Your task to perform on an android device: Do I have any events this weekend? Image 0: 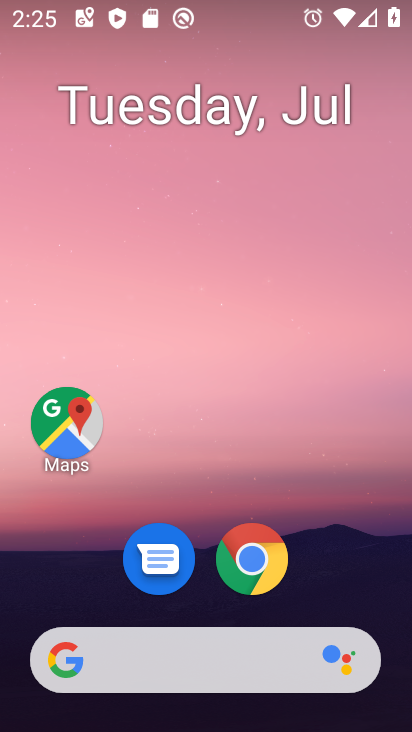
Step 0: drag from (373, 562) to (398, 90)
Your task to perform on an android device: Do I have any events this weekend? Image 1: 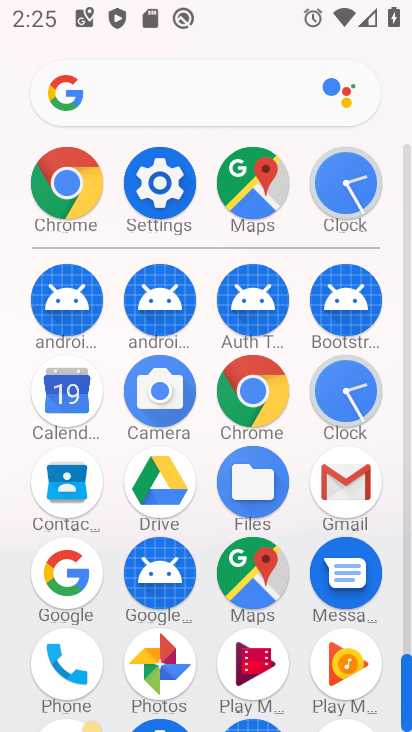
Step 1: click (90, 400)
Your task to perform on an android device: Do I have any events this weekend? Image 2: 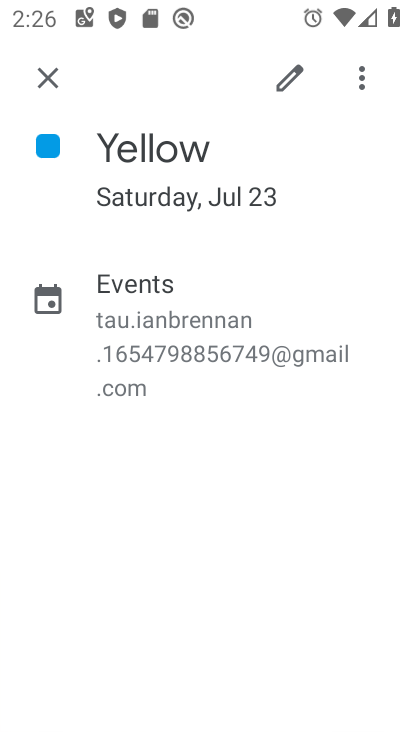
Step 2: task complete